Your task to perform on an android device: Go to internet settings Image 0: 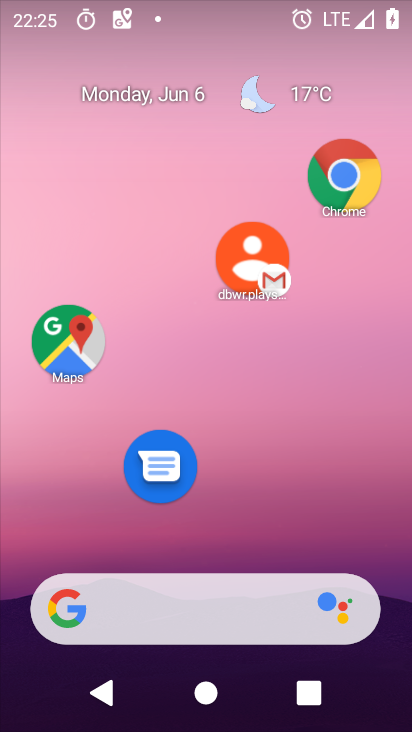
Step 0: click (167, 167)
Your task to perform on an android device: Go to internet settings Image 1: 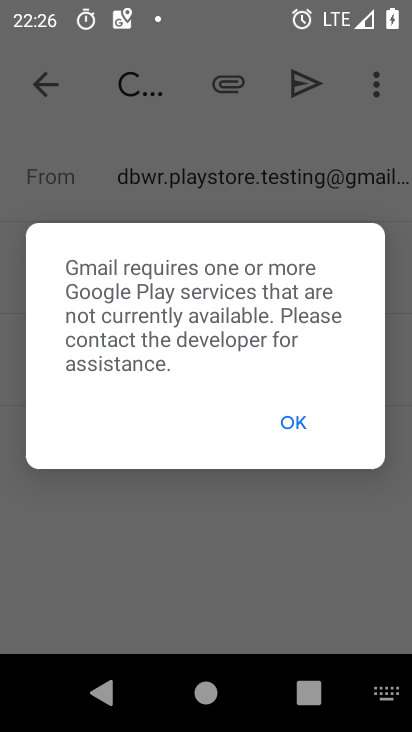
Step 1: press home button
Your task to perform on an android device: Go to internet settings Image 2: 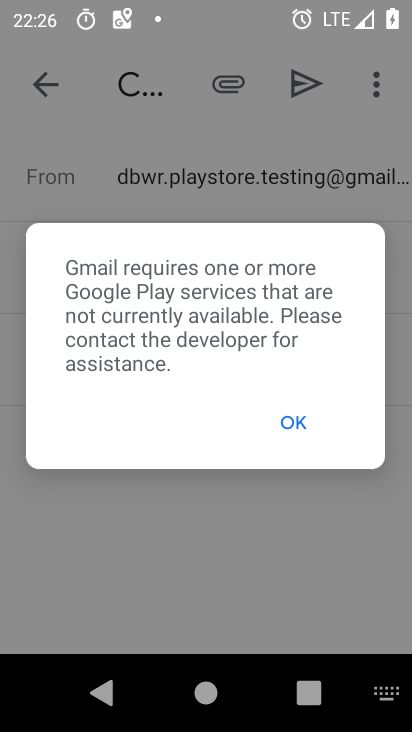
Step 2: drag from (250, 555) to (207, 21)
Your task to perform on an android device: Go to internet settings Image 3: 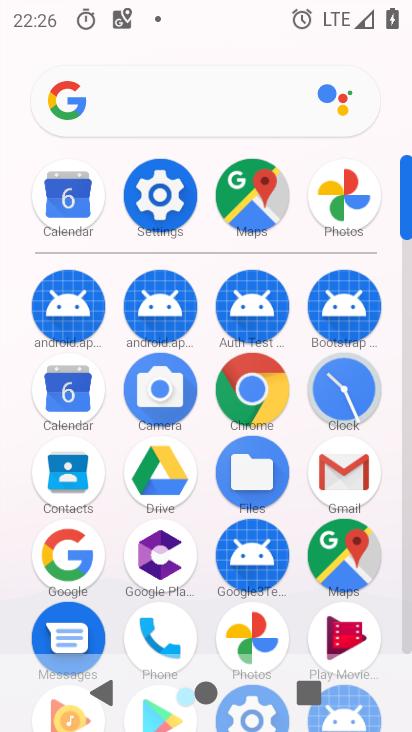
Step 3: click (172, 182)
Your task to perform on an android device: Go to internet settings Image 4: 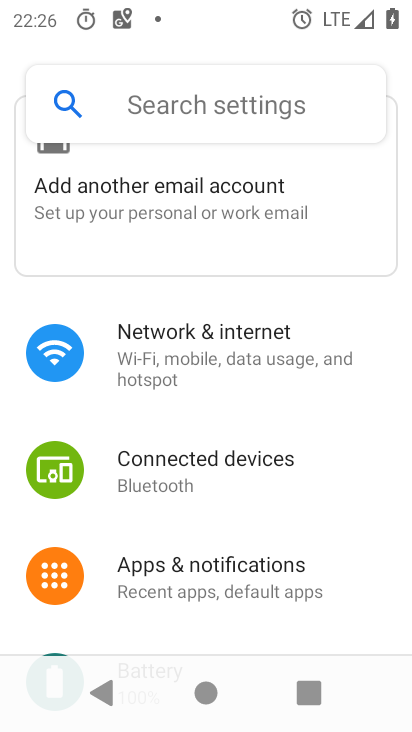
Step 4: click (203, 361)
Your task to perform on an android device: Go to internet settings Image 5: 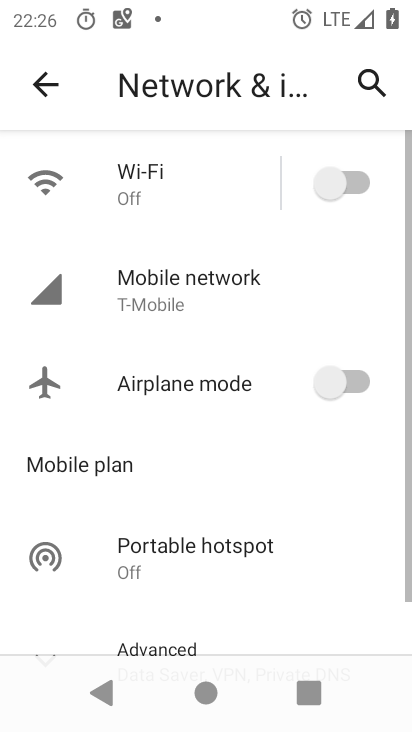
Step 5: task complete